Your task to perform on an android device: move an email to a new category in the gmail app Image 0: 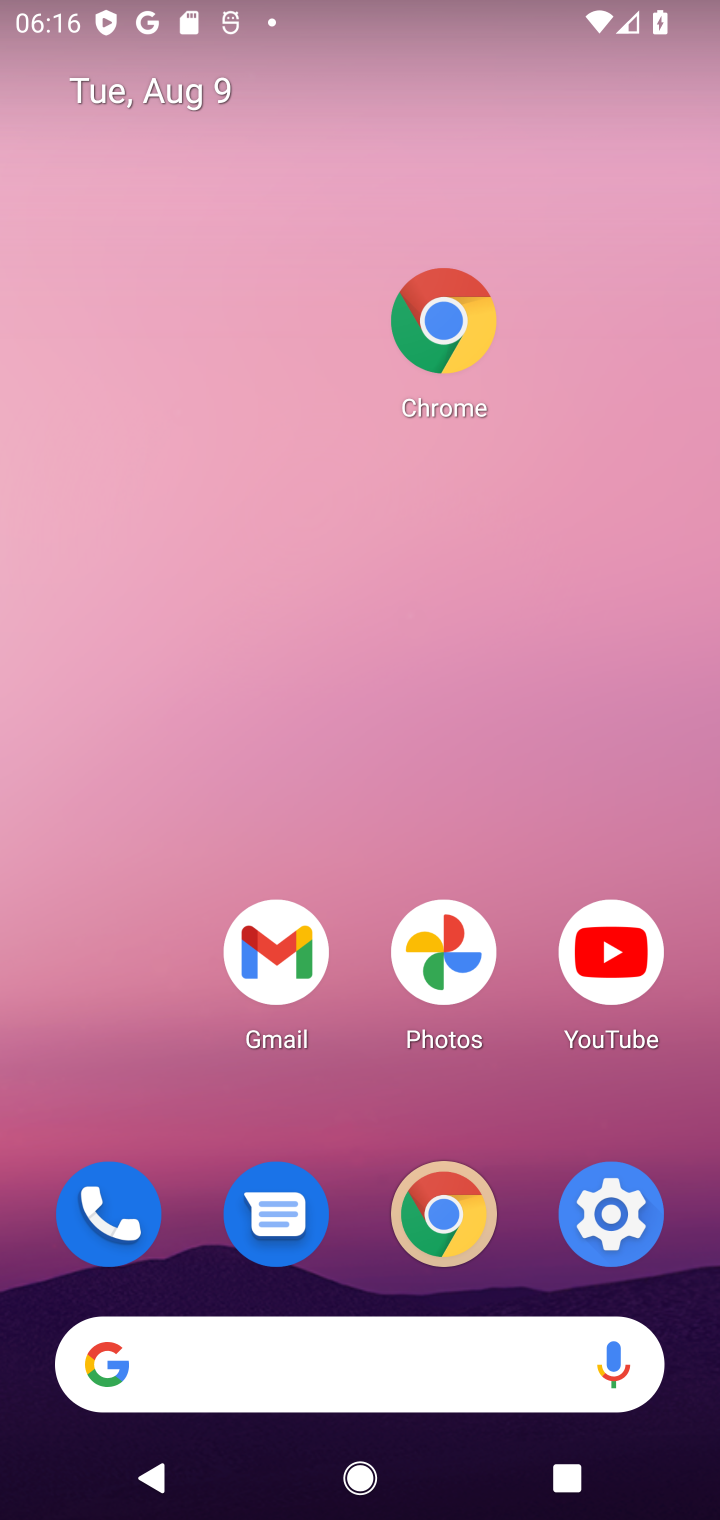
Step 0: drag from (503, 1403) to (177, 505)
Your task to perform on an android device: move an email to a new category in the gmail app Image 1: 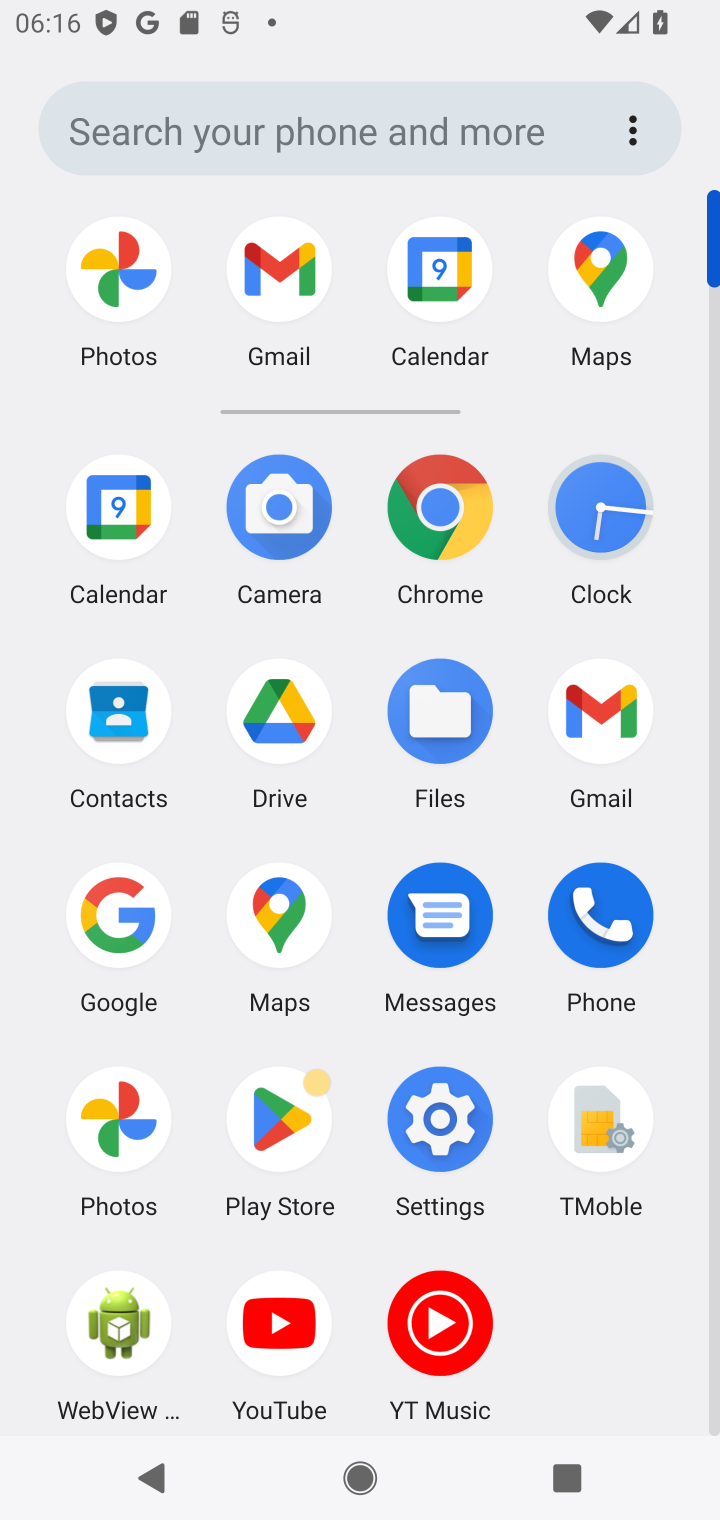
Step 1: click (280, 276)
Your task to perform on an android device: move an email to a new category in the gmail app Image 2: 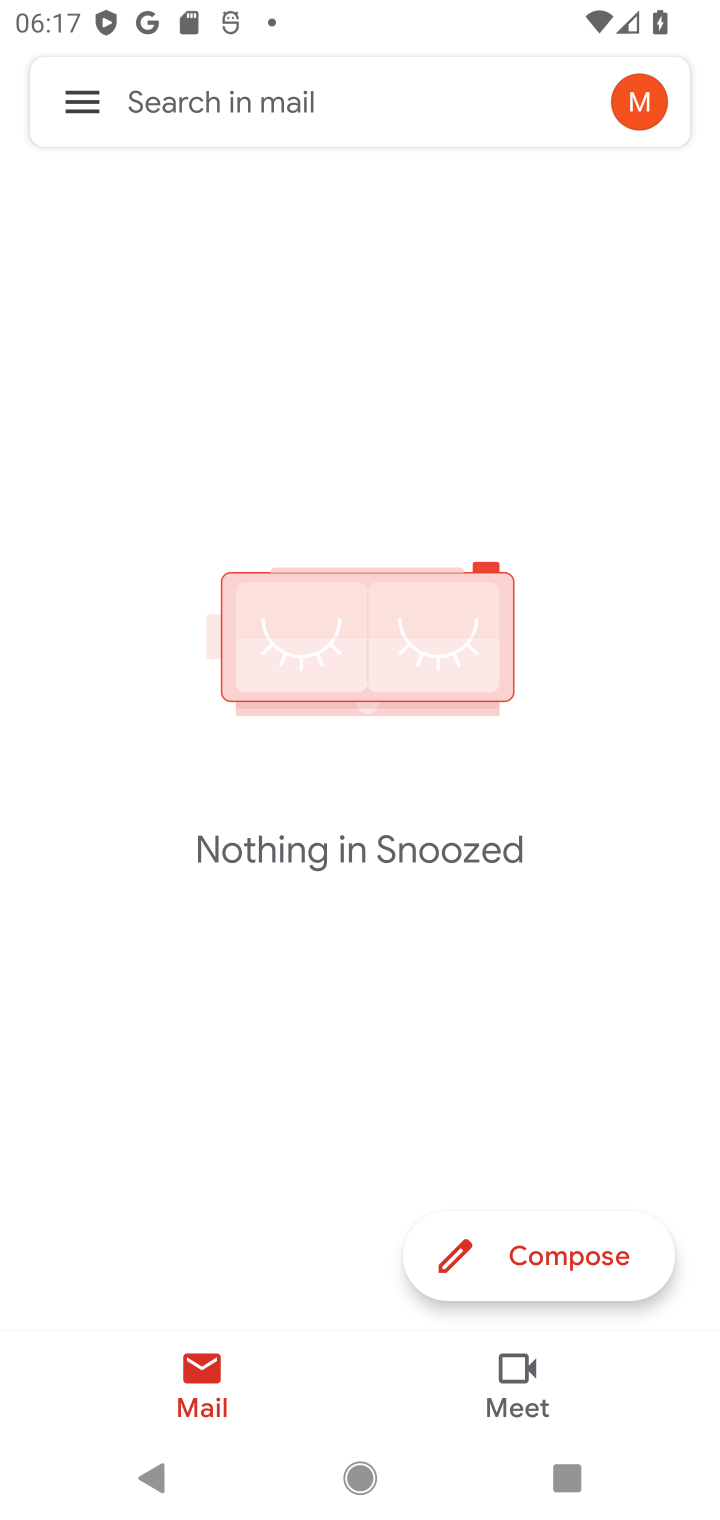
Step 2: click (80, 102)
Your task to perform on an android device: move an email to a new category in the gmail app Image 3: 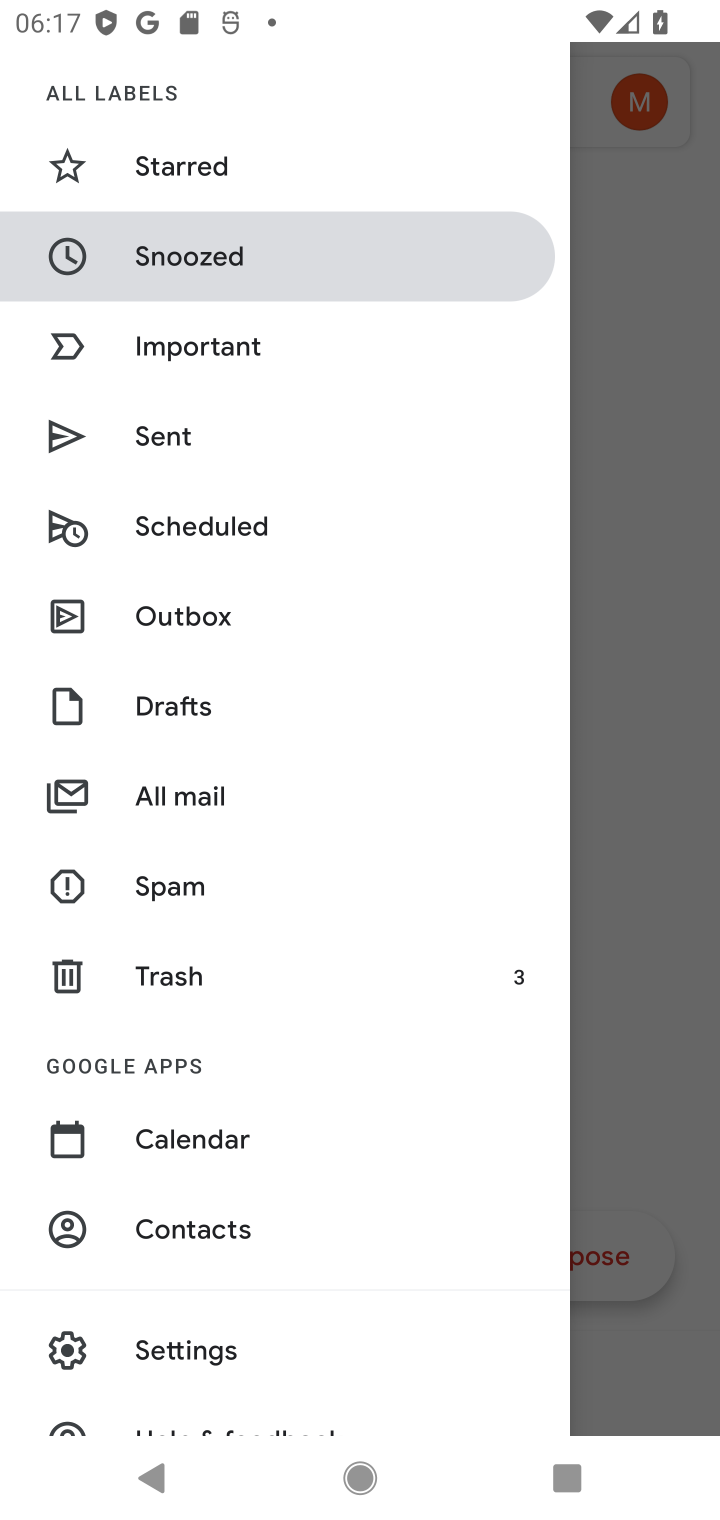
Step 3: click (212, 1329)
Your task to perform on an android device: move an email to a new category in the gmail app Image 4: 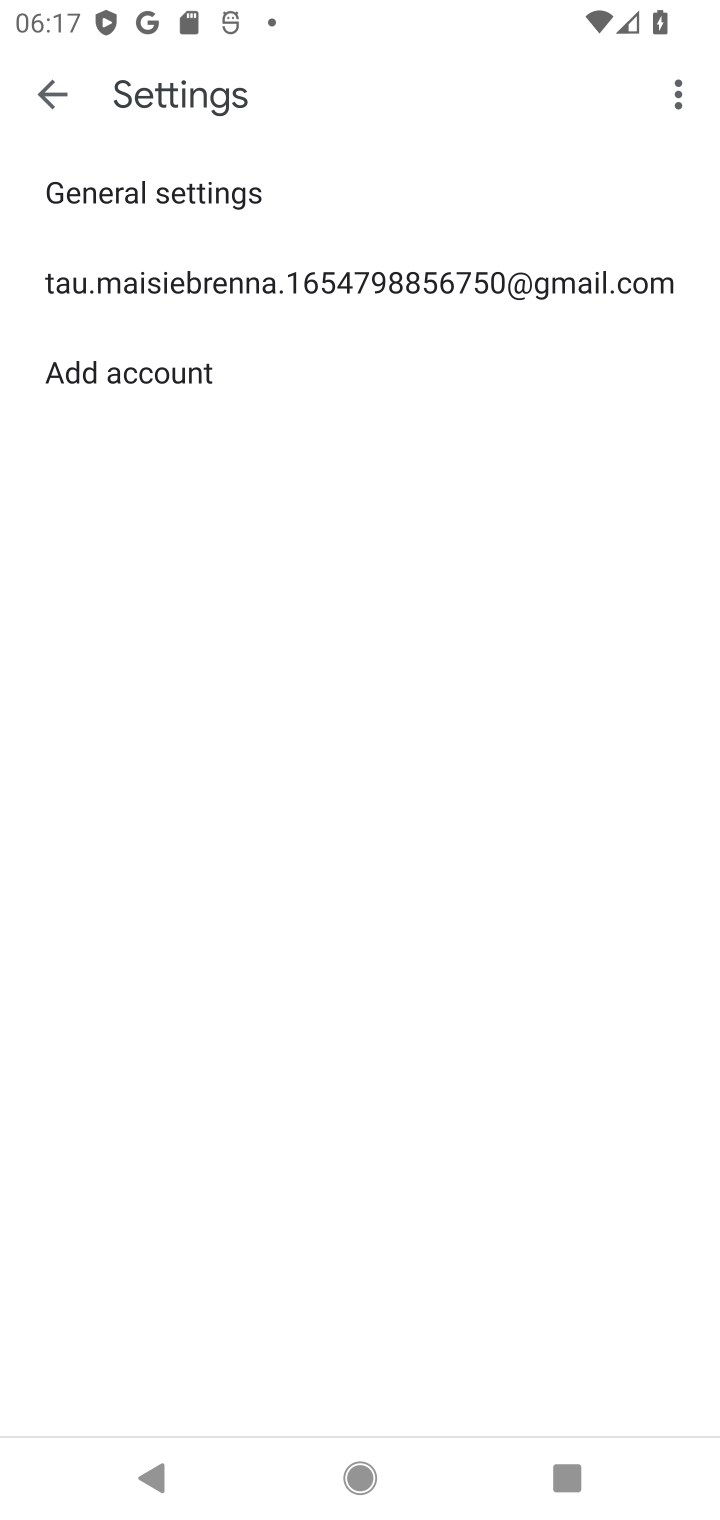
Step 4: click (332, 306)
Your task to perform on an android device: move an email to a new category in the gmail app Image 5: 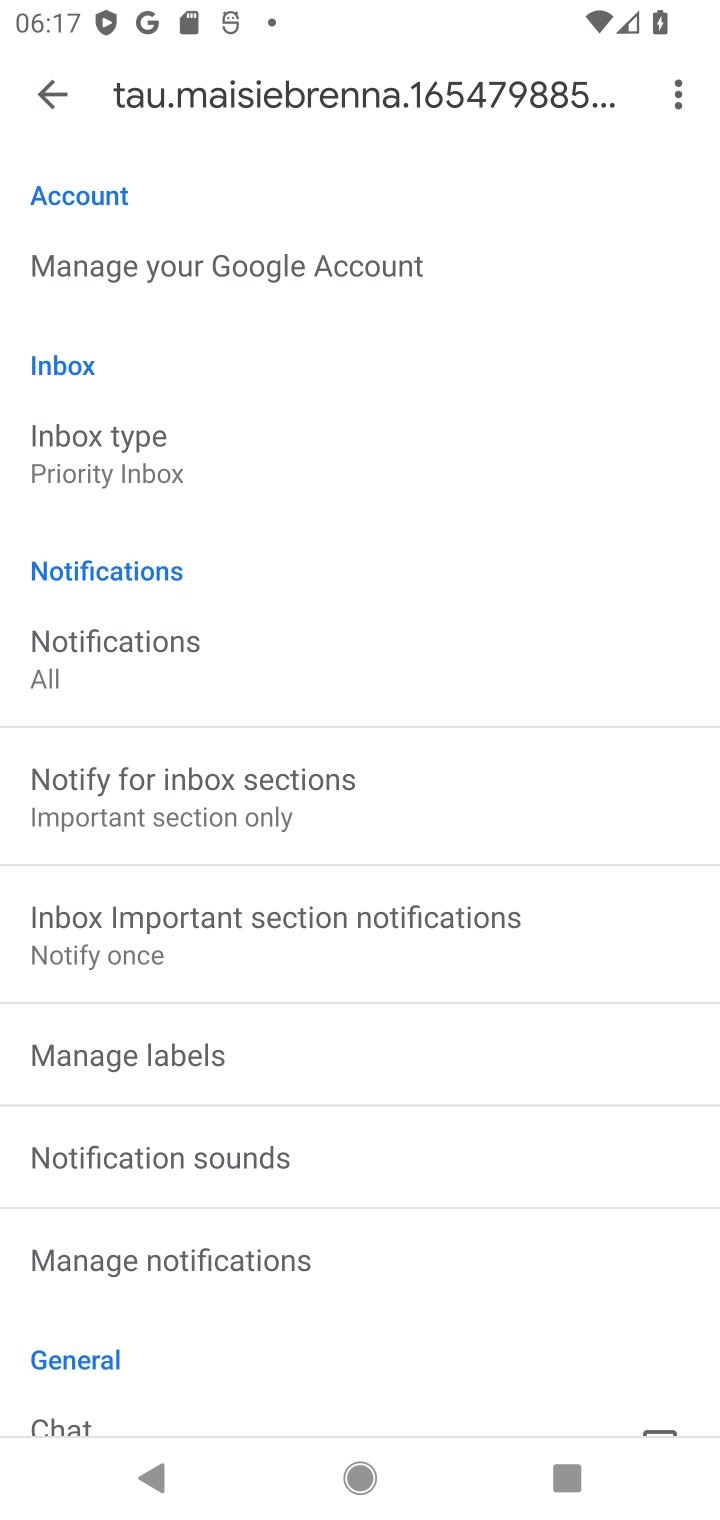
Step 5: click (198, 482)
Your task to perform on an android device: move an email to a new category in the gmail app Image 6: 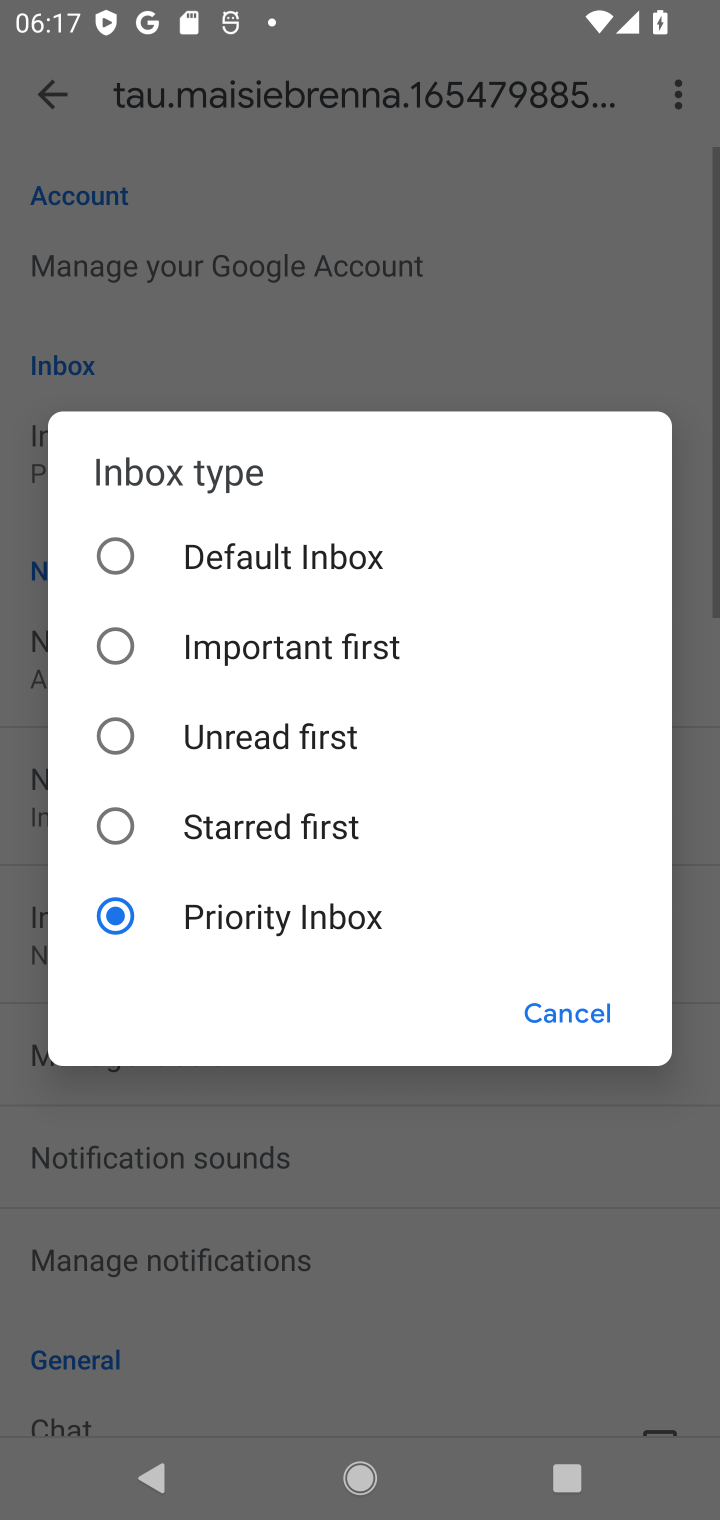
Step 6: click (252, 571)
Your task to perform on an android device: move an email to a new category in the gmail app Image 7: 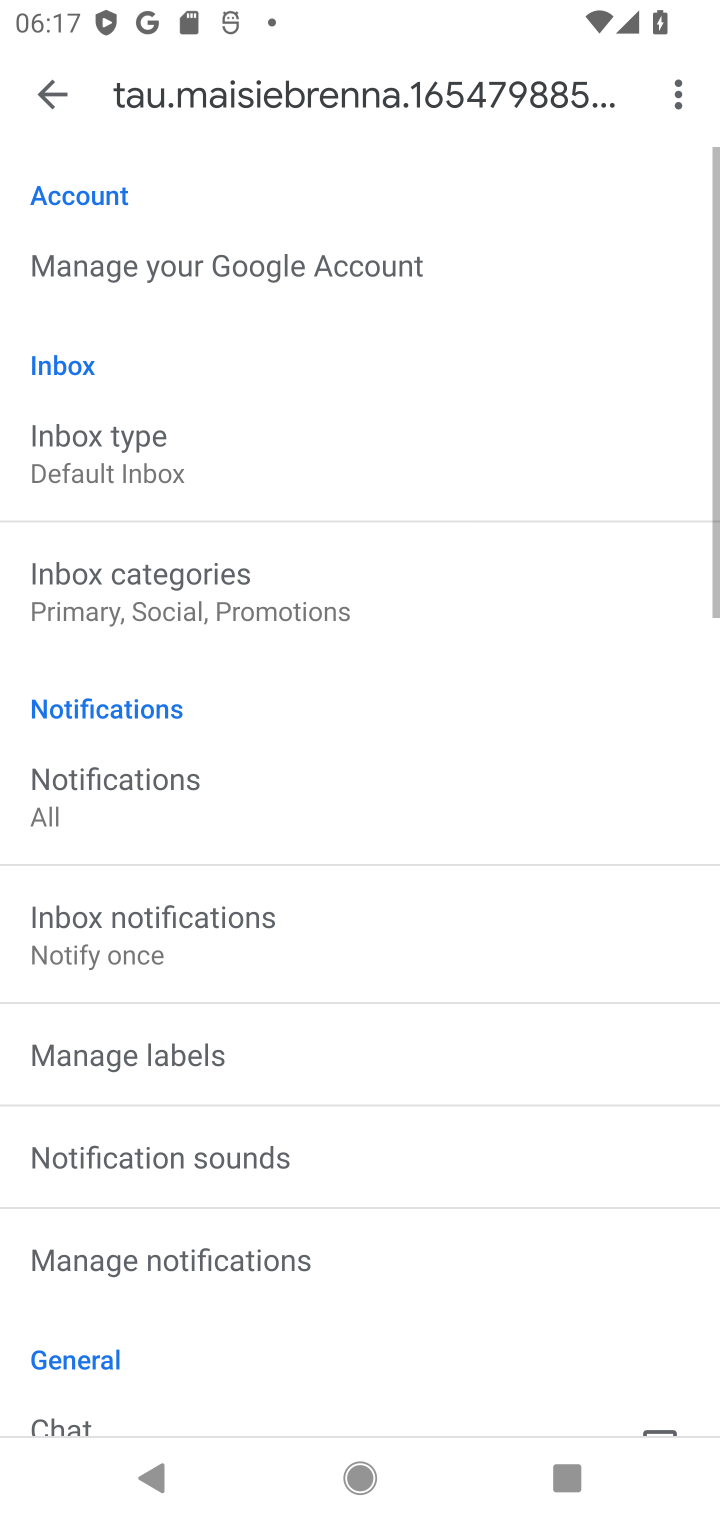
Step 7: click (174, 597)
Your task to perform on an android device: move an email to a new category in the gmail app Image 8: 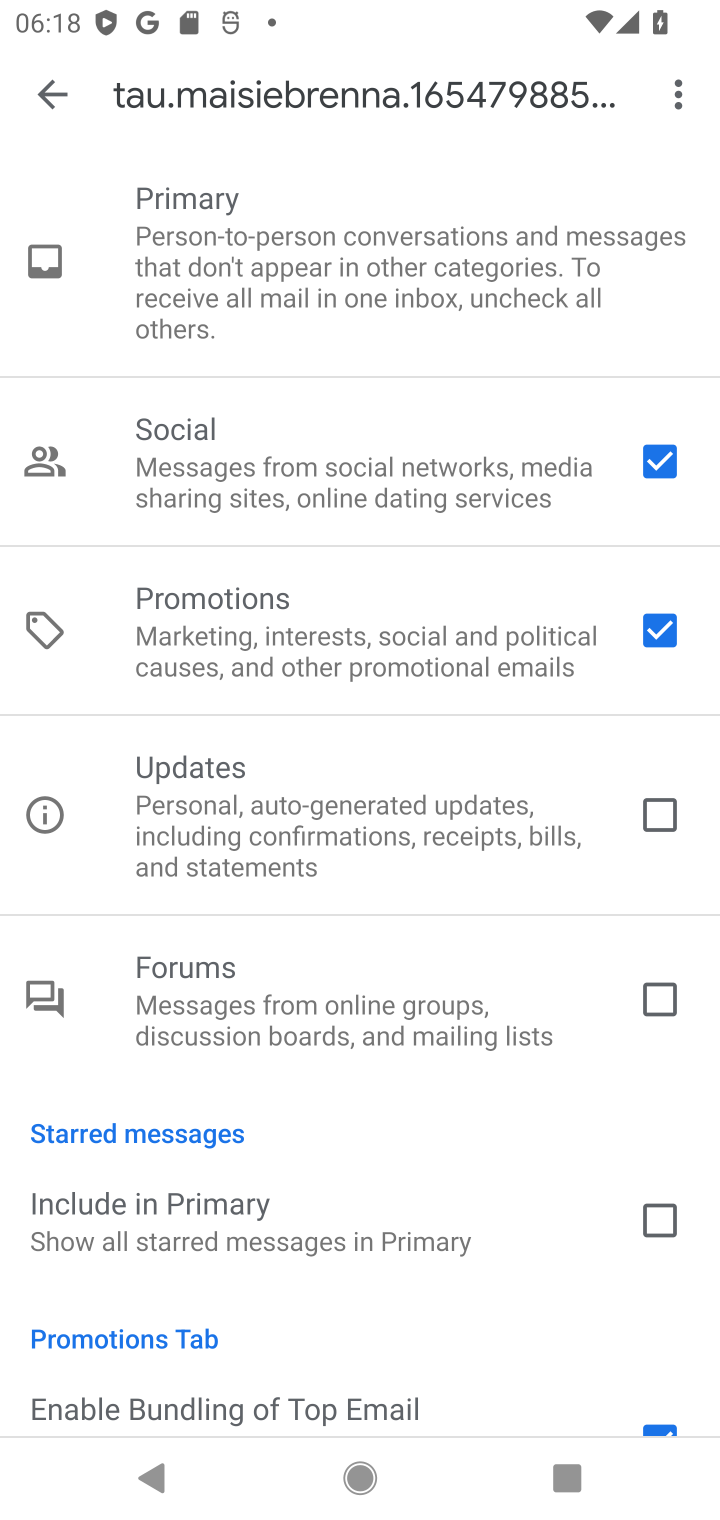
Step 8: task complete